Your task to perform on an android device: What are the best selling refrigerators at Home Depot? Image 0: 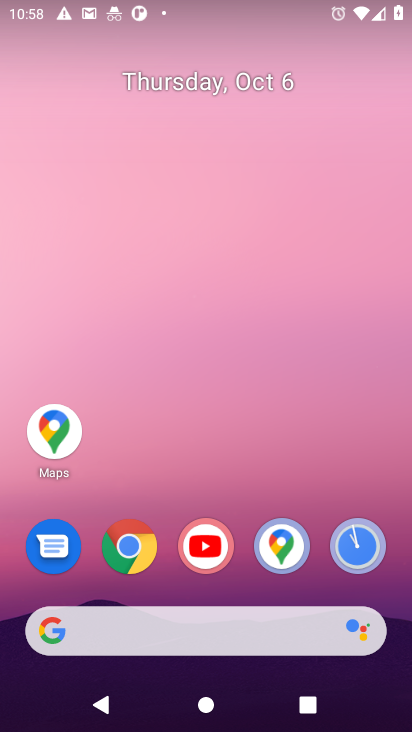
Step 0: click (126, 545)
Your task to perform on an android device: What are the best selling refrigerators at Home Depot? Image 1: 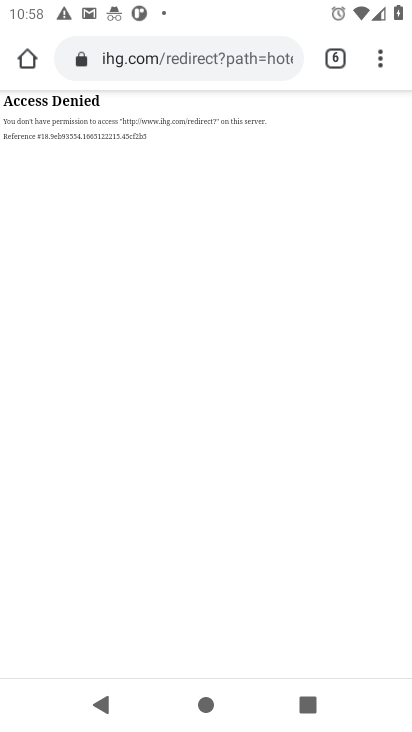
Step 1: click (161, 39)
Your task to perform on an android device: What are the best selling refrigerators at Home Depot? Image 2: 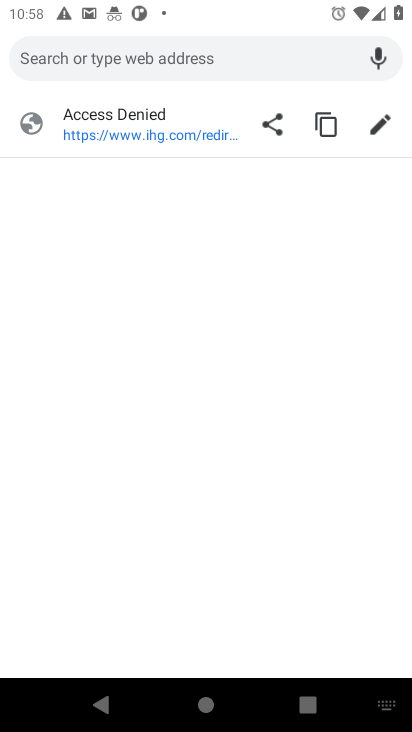
Step 2: click (178, 57)
Your task to perform on an android device: What are the best selling refrigerators at Home Depot? Image 3: 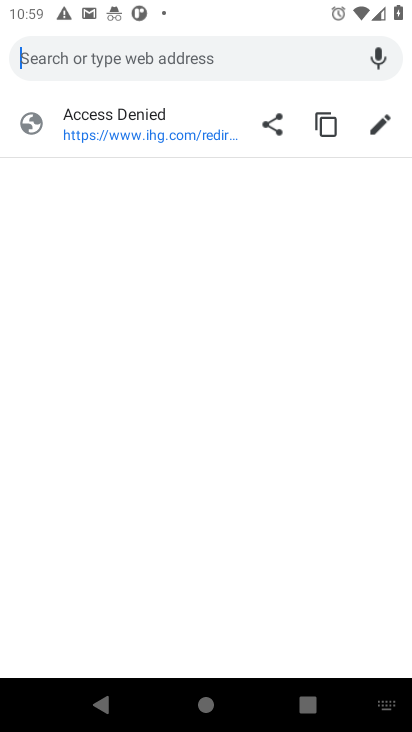
Step 3: type "home depot"
Your task to perform on an android device: What are the best selling refrigerators at Home Depot? Image 4: 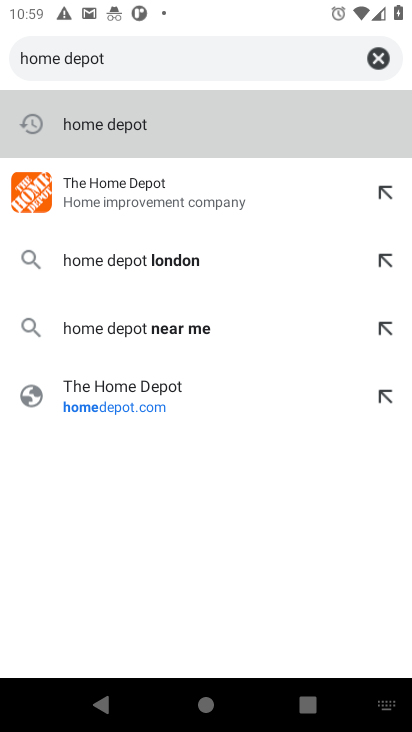
Step 4: click (87, 182)
Your task to perform on an android device: What are the best selling refrigerators at Home Depot? Image 5: 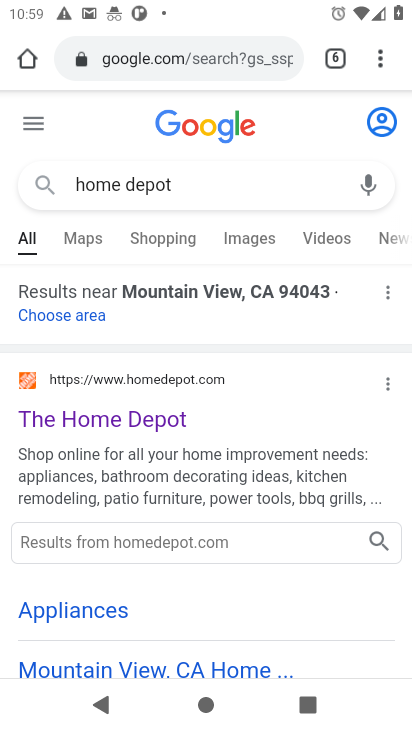
Step 5: click (96, 413)
Your task to perform on an android device: What are the best selling refrigerators at Home Depot? Image 6: 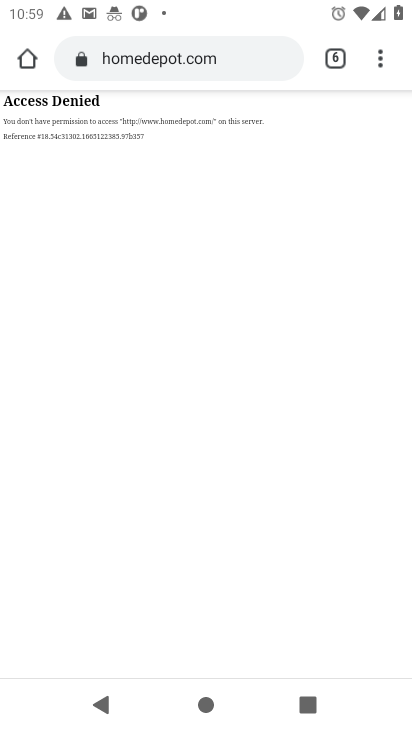
Step 6: task complete